Your task to perform on an android device: Clear all items from cart on costco.com. Search for "logitech g933" on costco.com, select the first entry, and add it to the cart. Image 0: 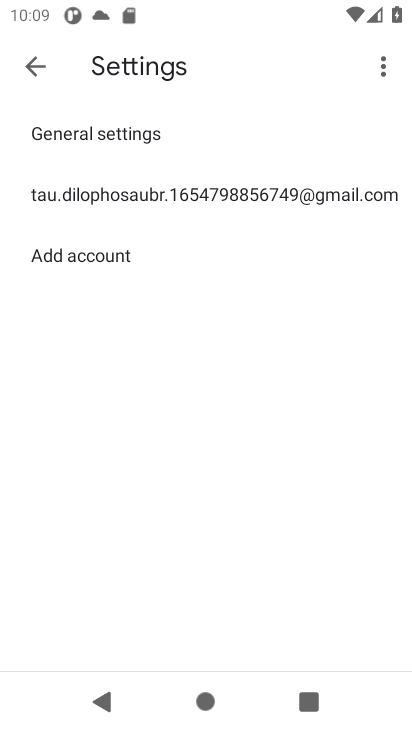
Step 0: press home button
Your task to perform on an android device: Clear all items from cart on costco.com. Search for "logitech g933" on costco.com, select the first entry, and add it to the cart. Image 1: 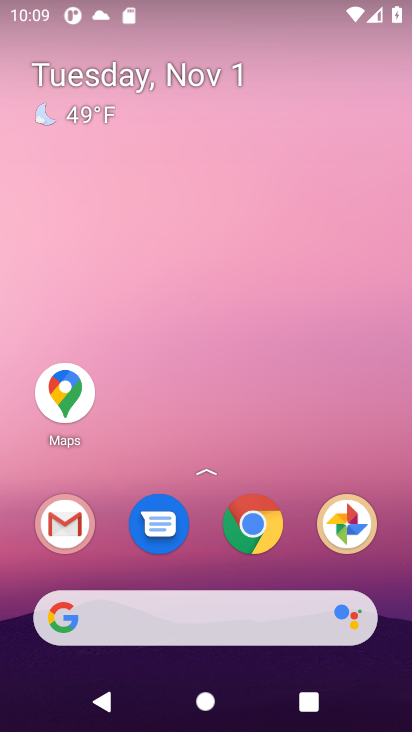
Step 1: click (94, 613)
Your task to perform on an android device: Clear all items from cart on costco.com. Search for "logitech g933" on costco.com, select the first entry, and add it to the cart. Image 2: 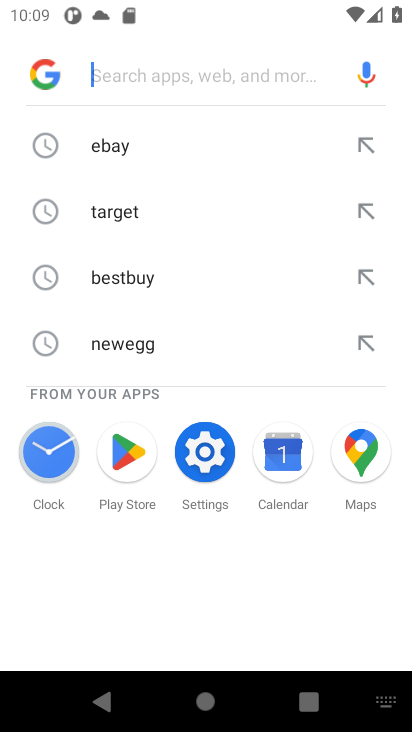
Step 2: type "costco.com"
Your task to perform on an android device: Clear all items from cart on costco.com. Search for "logitech g933" on costco.com, select the first entry, and add it to the cart. Image 3: 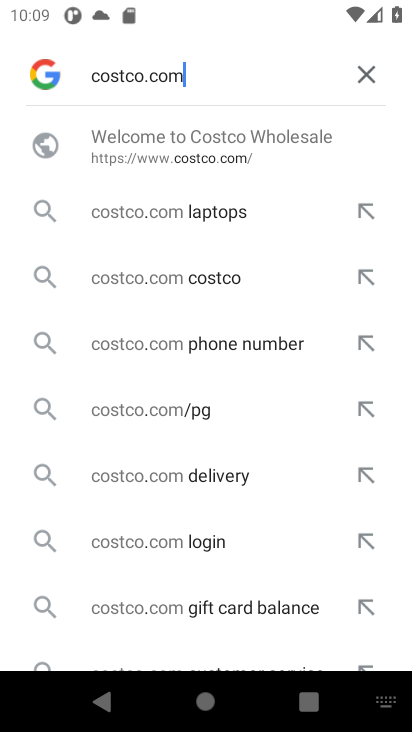
Step 3: press enter
Your task to perform on an android device: Clear all items from cart on costco.com. Search for "logitech g933" on costco.com, select the first entry, and add it to the cart. Image 4: 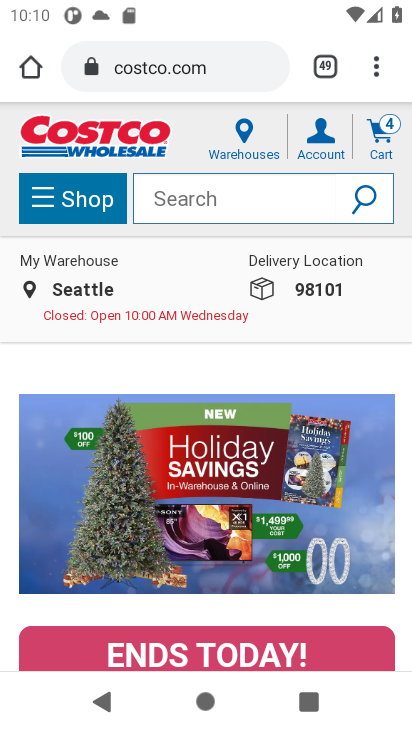
Step 4: click (179, 196)
Your task to perform on an android device: Clear all items from cart on costco.com. Search for "logitech g933" on costco.com, select the first entry, and add it to the cart. Image 5: 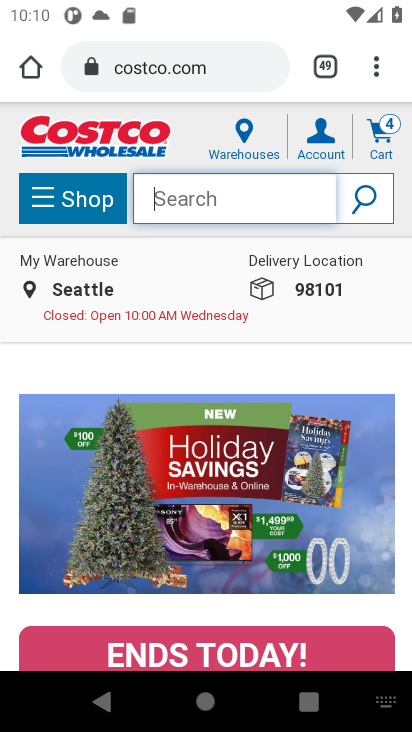
Step 5: click (388, 126)
Your task to perform on an android device: Clear all items from cart on costco.com. Search for "logitech g933" on costco.com, select the first entry, and add it to the cart. Image 6: 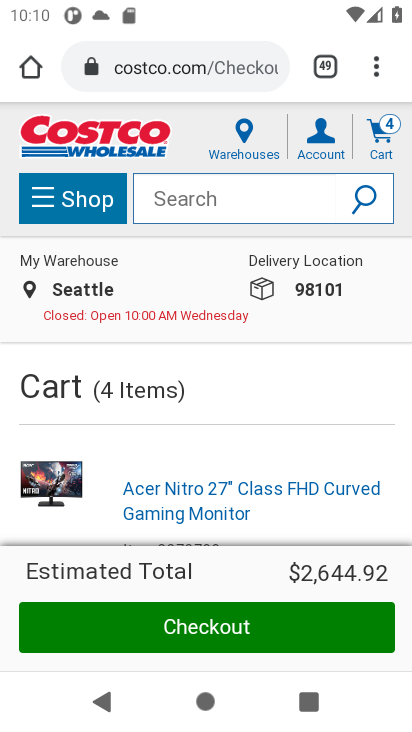
Step 6: drag from (85, 514) to (80, 319)
Your task to perform on an android device: Clear all items from cart on costco.com. Search for "logitech g933" on costco.com, select the first entry, and add it to the cart. Image 7: 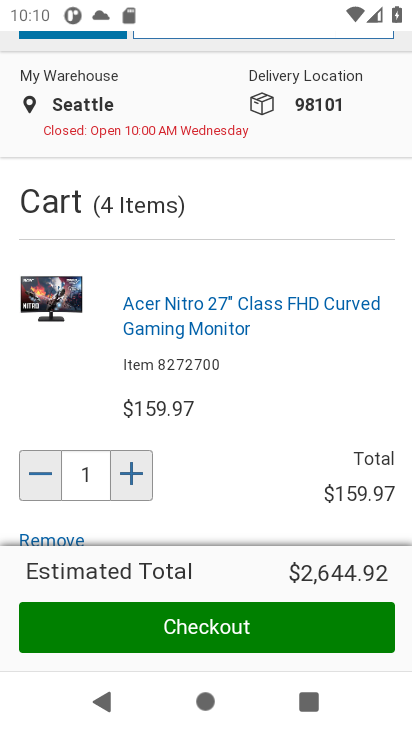
Step 7: drag from (181, 475) to (166, 226)
Your task to perform on an android device: Clear all items from cart on costco.com. Search for "logitech g933" on costco.com, select the first entry, and add it to the cart. Image 8: 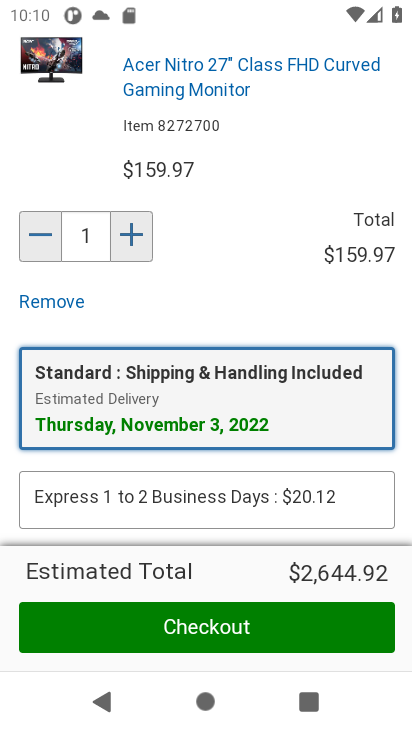
Step 8: click (45, 304)
Your task to perform on an android device: Clear all items from cart on costco.com. Search for "logitech g933" on costco.com, select the first entry, and add it to the cart. Image 9: 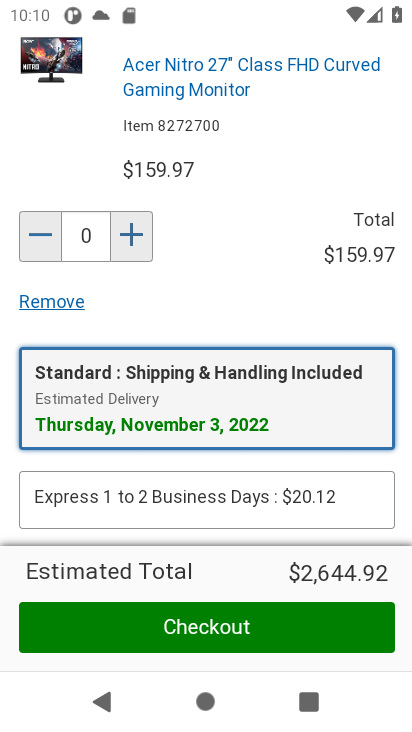
Step 9: click (49, 300)
Your task to perform on an android device: Clear all items from cart on costco.com. Search for "logitech g933" on costco.com, select the first entry, and add it to the cart. Image 10: 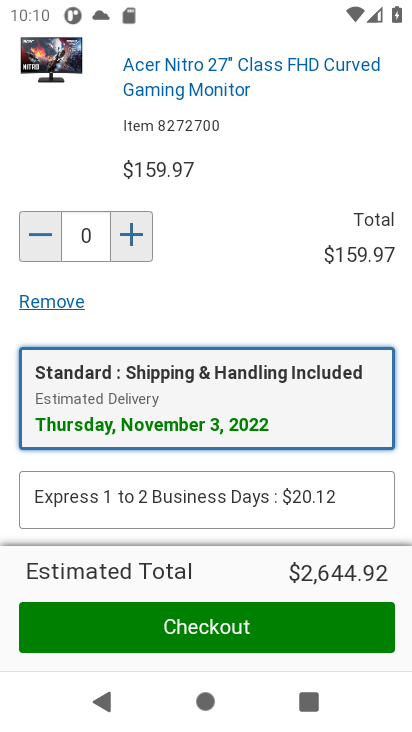
Step 10: task complete